Your task to perform on an android device: turn off translation in the chrome app Image 0: 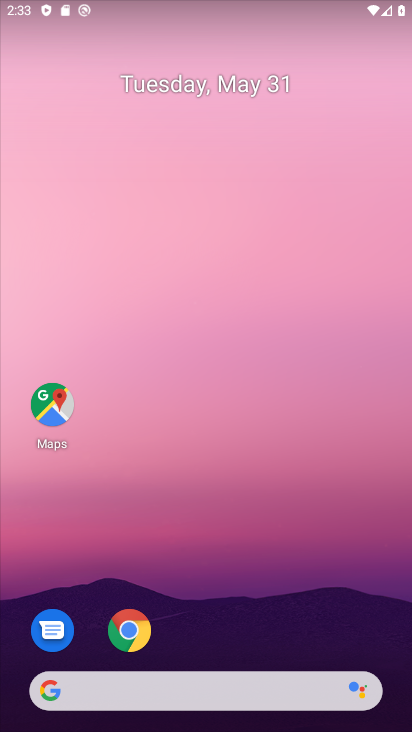
Step 0: drag from (253, 449) to (271, 79)
Your task to perform on an android device: turn off translation in the chrome app Image 1: 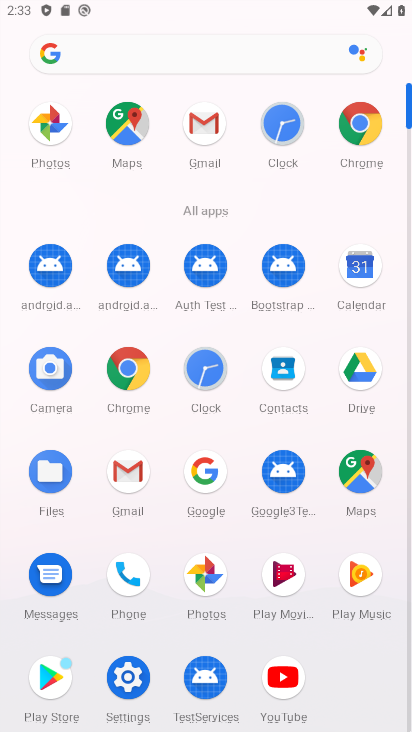
Step 1: click (134, 366)
Your task to perform on an android device: turn off translation in the chrome app Image 2: 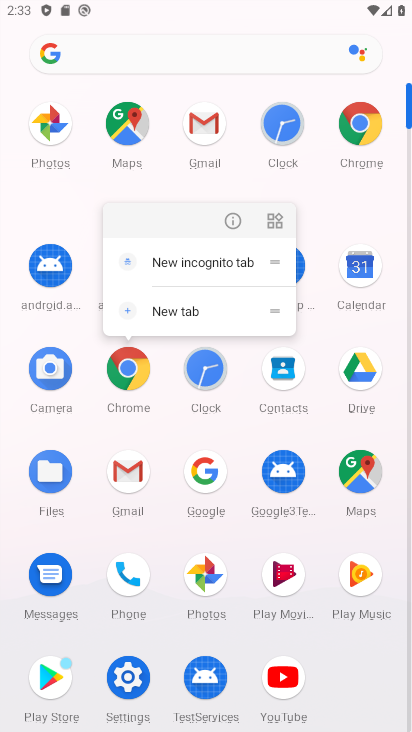
Step 2: click (132, 366)
Your task to perform on an android device: turn off translation in the chrome app Image 3: 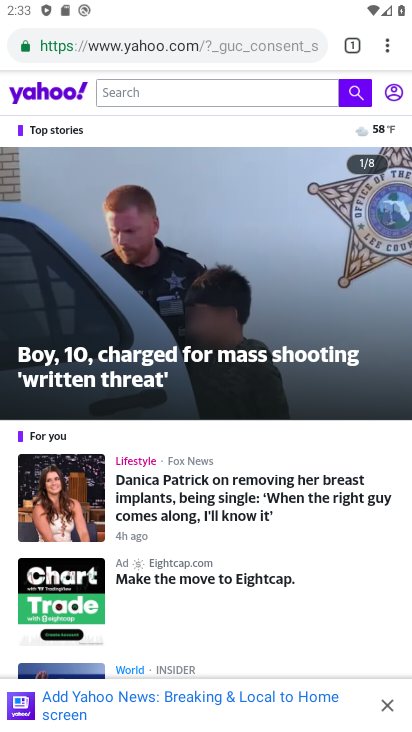
Step 3: drag from (385, 43) to (236, 543)
Your task to perform on an android device: turn off translation in the chrome app Image 4: 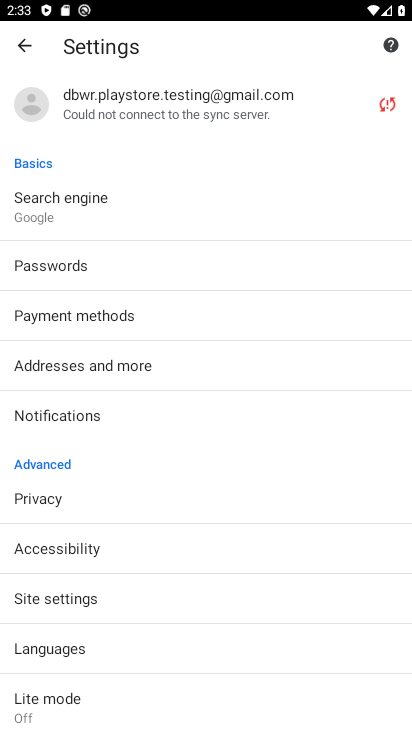
Step 4: click (39, 647)
Your task to perform on an android device: turn off translation in the chrome app Image 5: 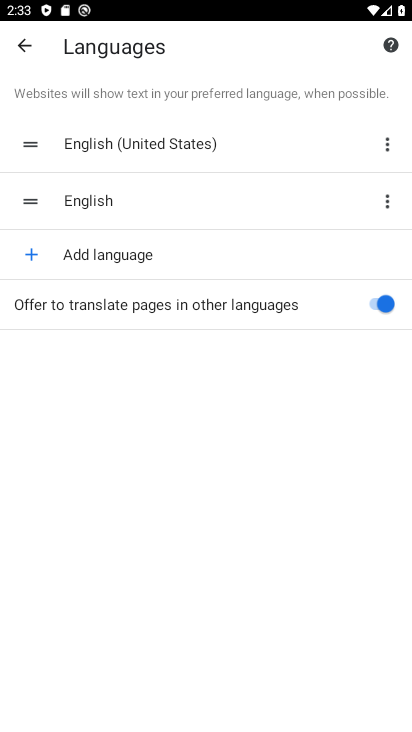
Step 5: click (379, 298)
Your task to perform on an android device: turn off translation in the chrome app Image 6: 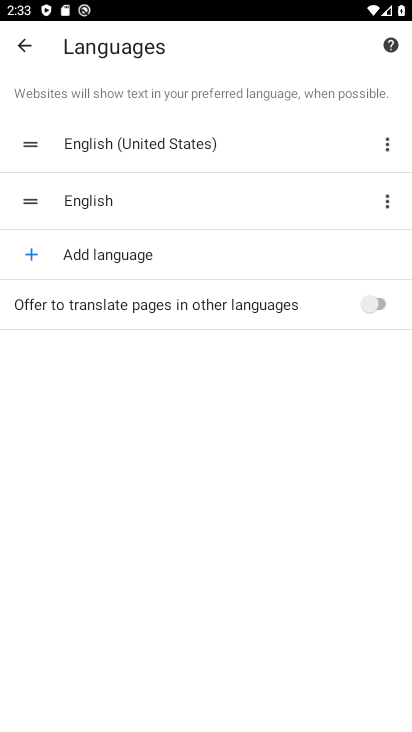
Step 6: task complete